Your task to perform on an android device: Search for pizza restaurants on Maps Image 0: 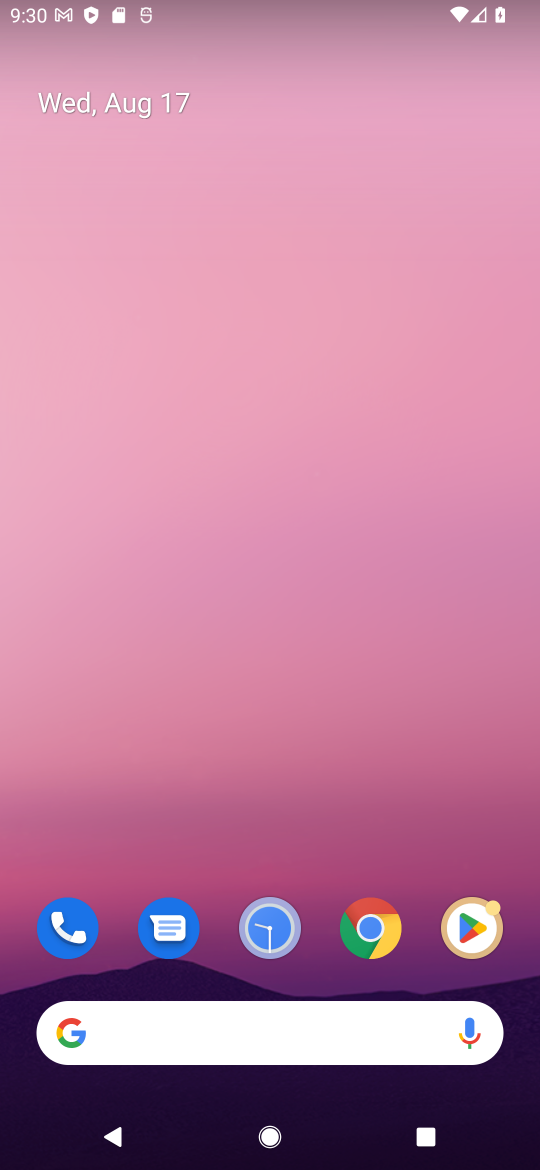
Step 0: drag from (437, 871) to (382, 68)
Your task to perform on an android device: Search for pizza restaurants on Maps Image 1: 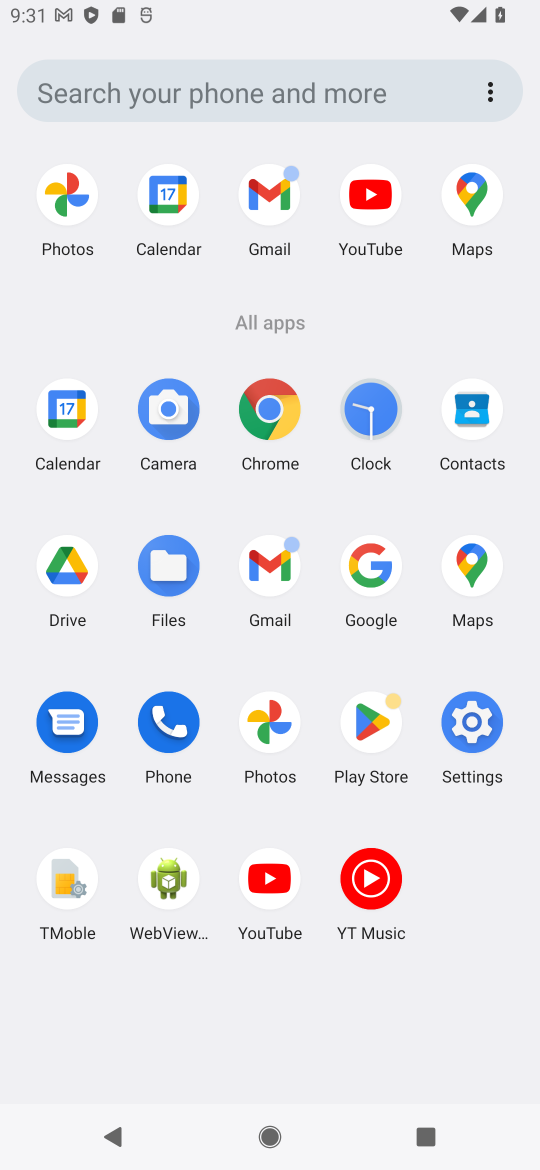
Step 1: click (478, 568)
Your task to perform on an android device: Search for pizza restaurants on Maps Image 2: 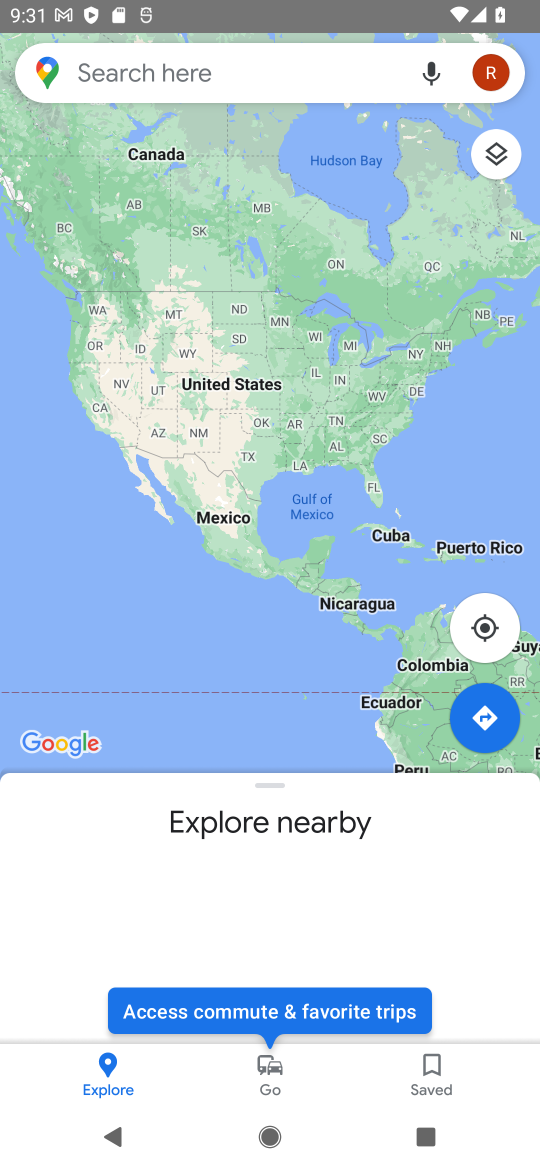
Step 2: click (181, 84)
Your task to perform on an android device: Search for pizza restaurants on Maps Image 3: 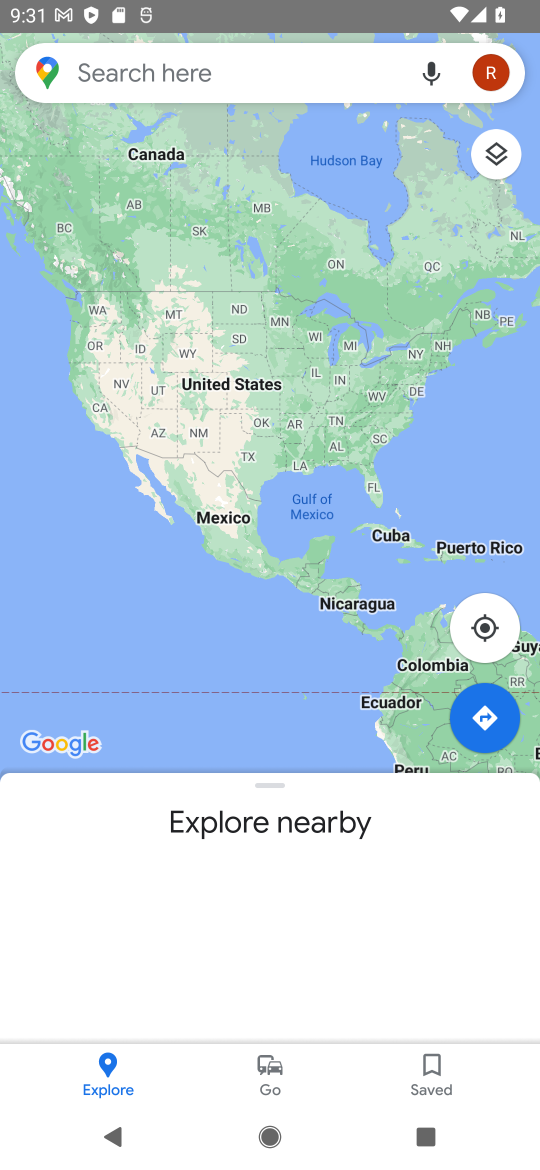
Step 3: click (176, 72)
Your task to perform on an android device: Search for pizza restaurants on Maps Image 4: 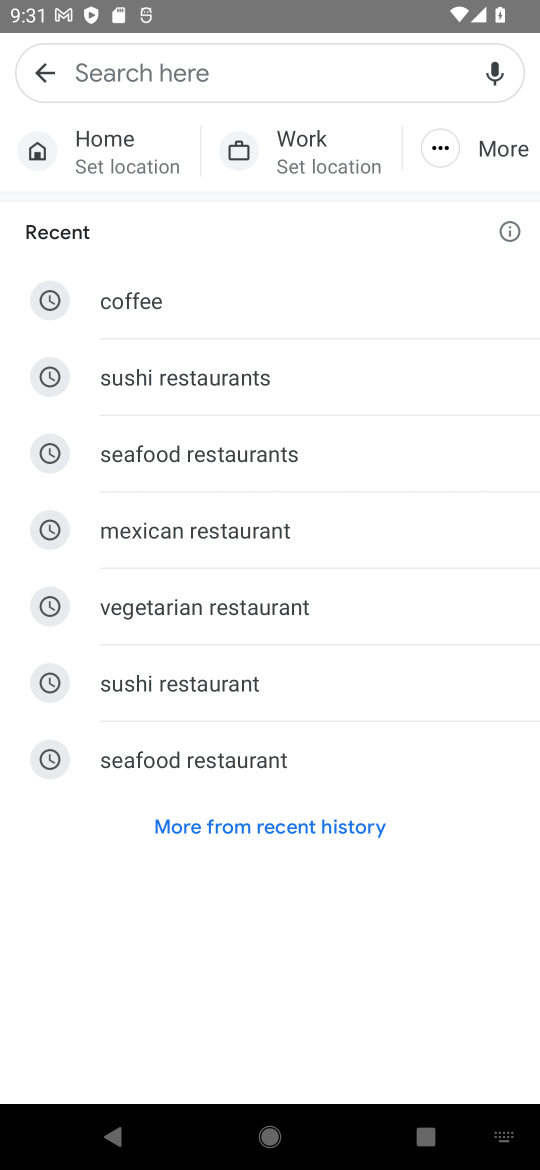
Step 4: drag from (498, 491) to (287, 75)
Your task to perform on an android device: Search for pizza restaurants on Maps Image 5: 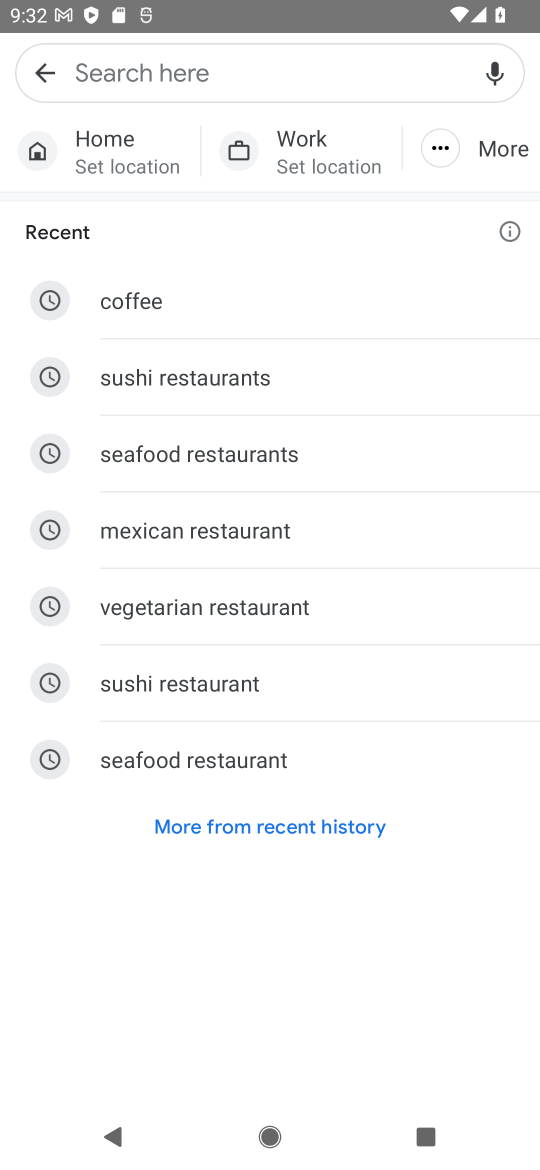
Step 5: click (287, 76)
Your task to perform on an android device: Search for pizza restaurants on Maps Image 6: 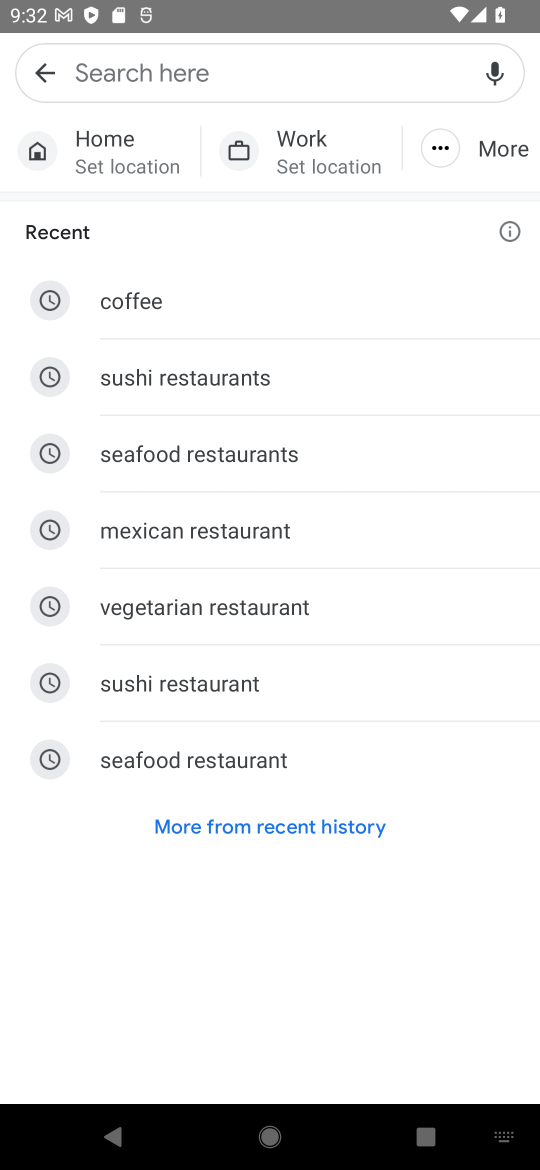
Step 6: type "pizza restaurant"
Your task to perform on an android device: Search for pizza restaurants on Maps Image 7: 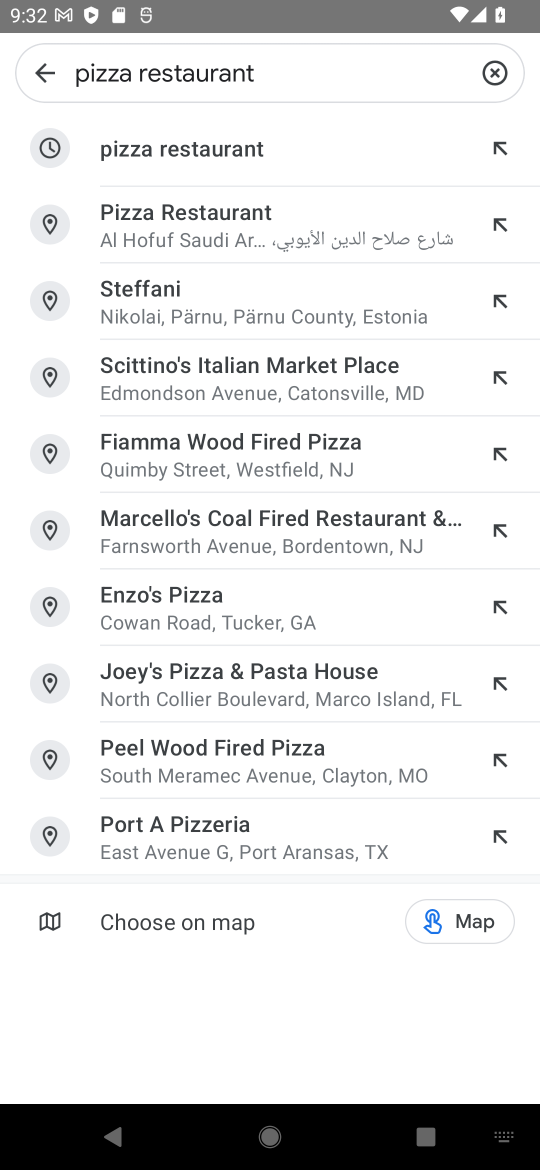
Step 7: click (367, 149)
Your task to perform on an android device: Search for pizza restaurants on Maps Image 8: 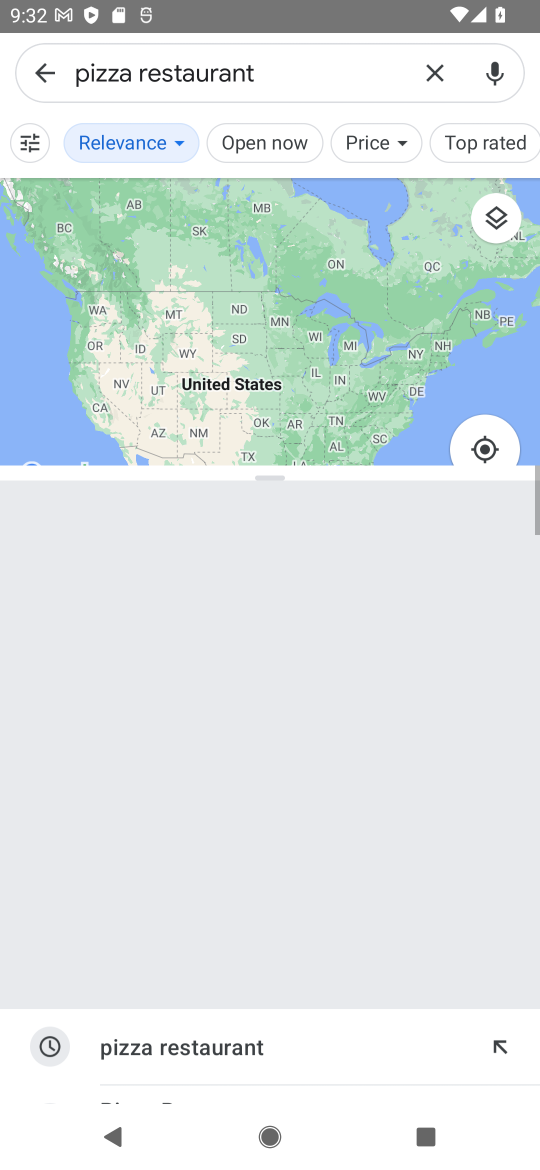
Step 8: click (130, 144)
Your task to perform on an android device: Search for pizza restaurants on Maps Image 9: 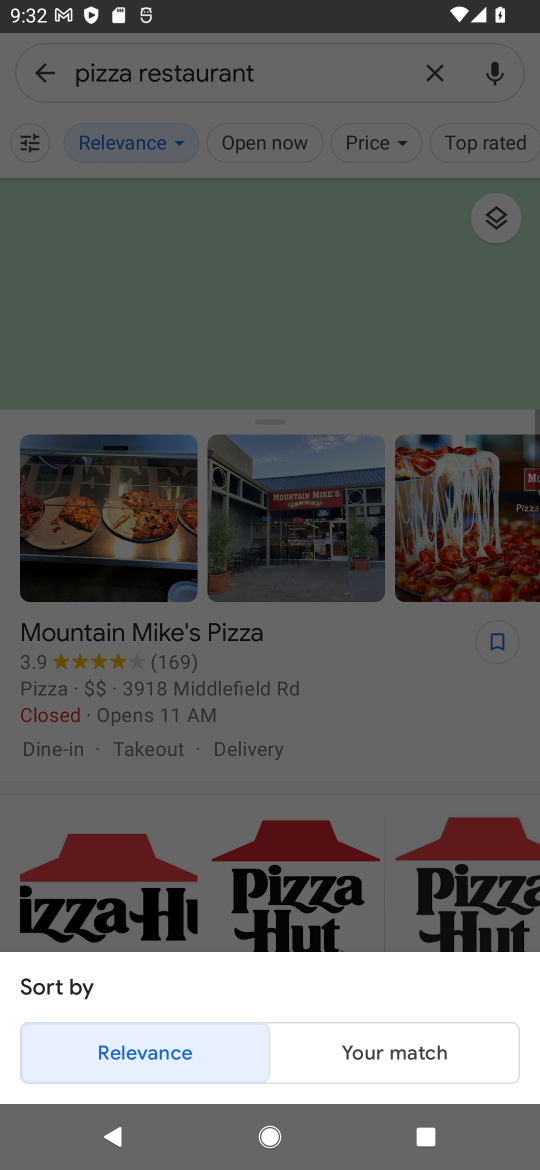
Step 9: task complete